Your task to perform on an android device: turn off notifications in google photos Image 0: 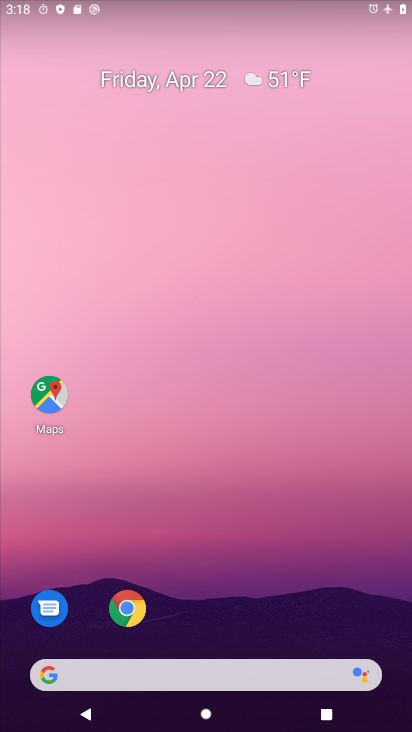
Step 0: drag from (262, 551) to (252, 15)
Your task to perform on an android device: turn off notifications in google photos Image 1: 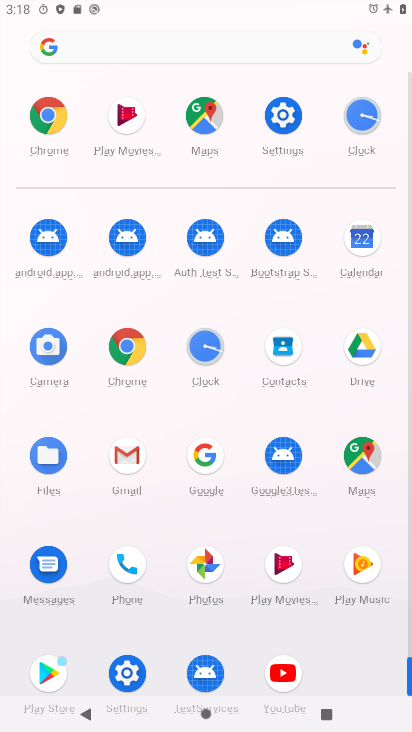
Step 1: click (209, 558)
Your task to perform on an android device: turn off notifications in google photos Image 2: 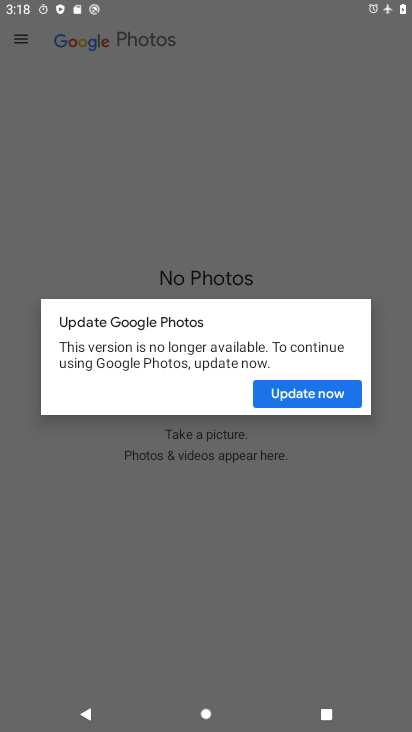
Step 2: click (299, 388)
Your task to perform on an android device: turn off notifications in google photos Image 3: 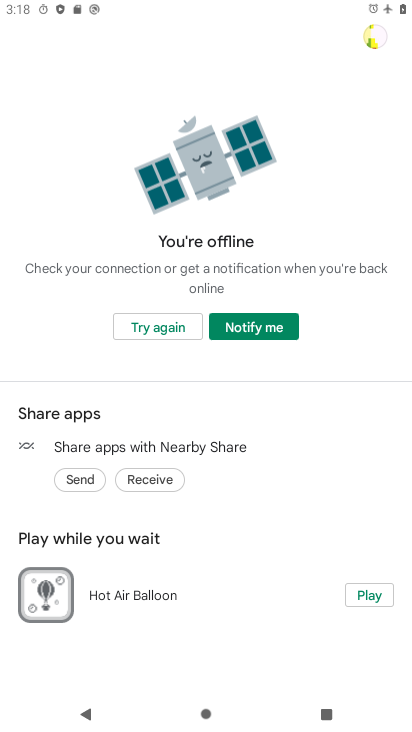
Step 3: click (159, 326)
Your task to perform on an android device: turn off notifications in google photos Image 4: 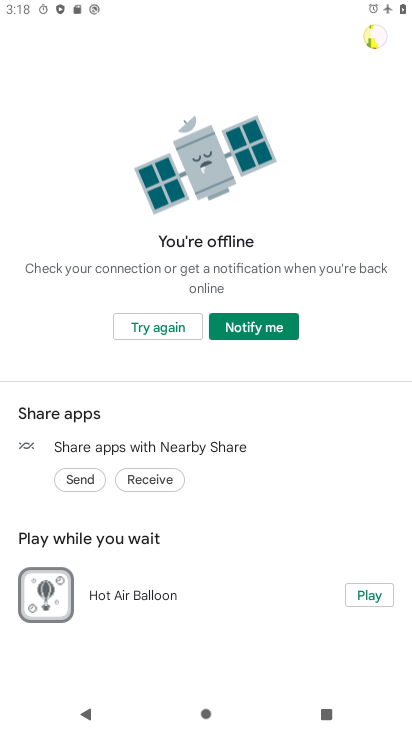
Step 4: task complete